Your task to perform on an android device: turn on location history Image 0: 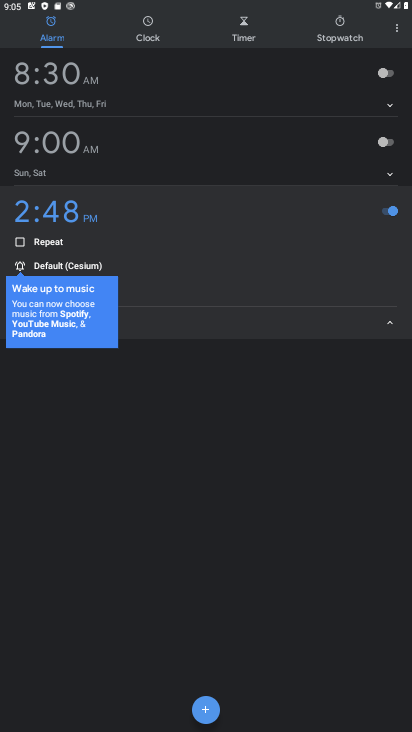
Step 0: press home button
Your task to perform on an android device: turn on location history Image 1: 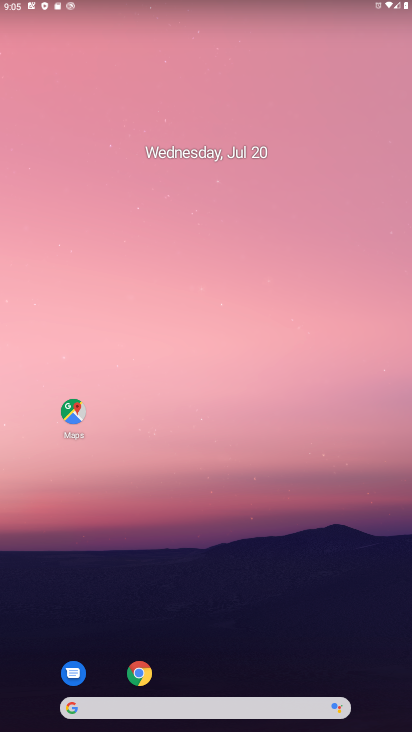
Step 1: drag from (229, 731) to (229, 314)
Your task to perform on an android device: turn on location history Image 2: 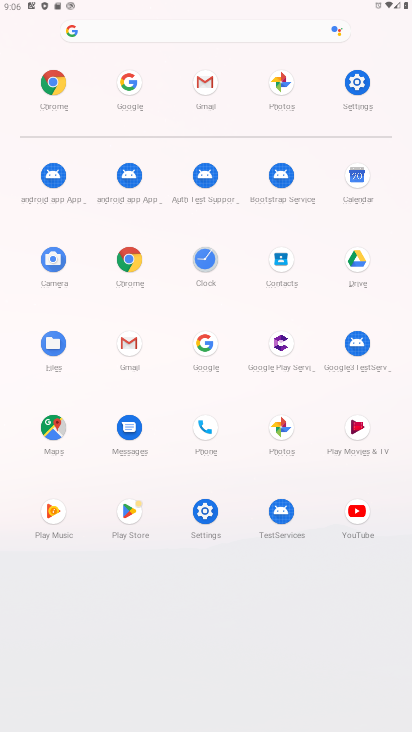
Step 2: click (359, 79)
Your task to perform on an android device: turn on location history Image 3: 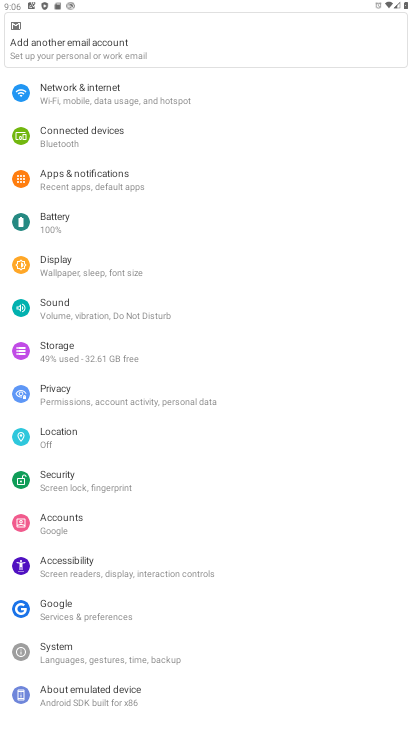
Step 3: click (52, 435)
Your task to perform on an android device: turn on location history Image 4: 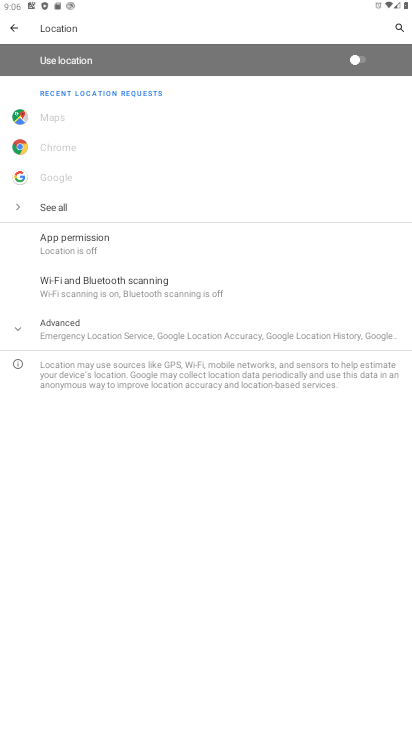
Step 4: click (70, 332)
Your task to perform on an android device: turn on location history Image 5: 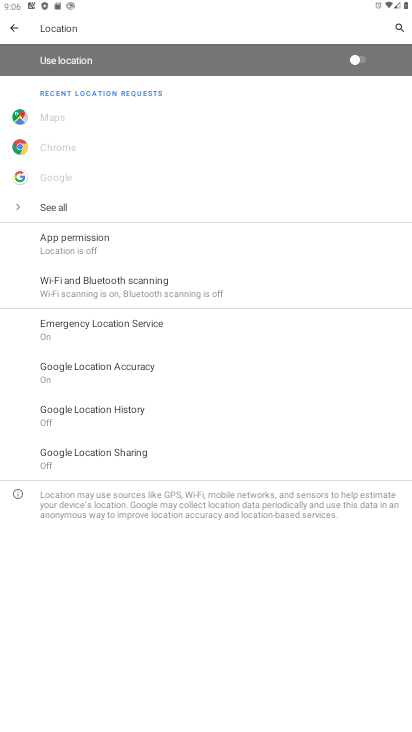
Step 5: click (67, 411)
Your task to perform on an android device: turn on location history Image 6: 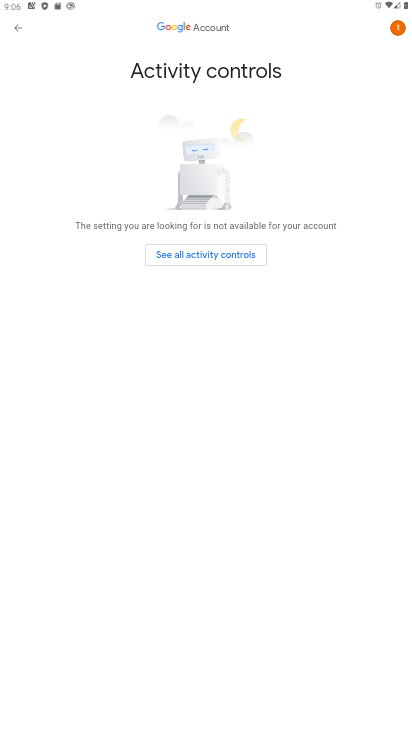
Step 6: click (182, 251)
Your task to perform on an android device: turn on location history Image 7: 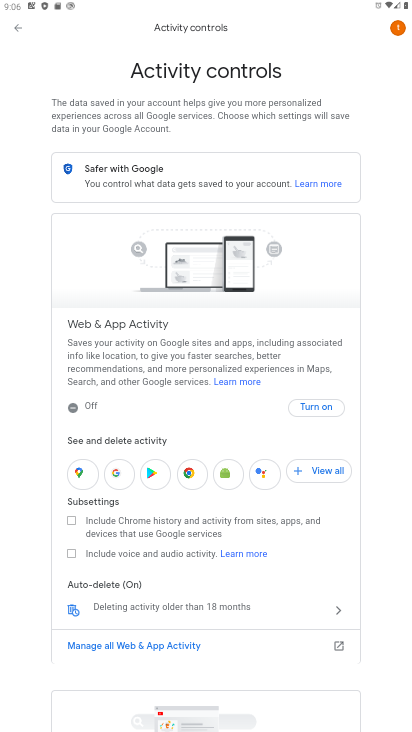
Step 7: click (322, 404)
Your task to perform on an android device: turn on location history Image 8: 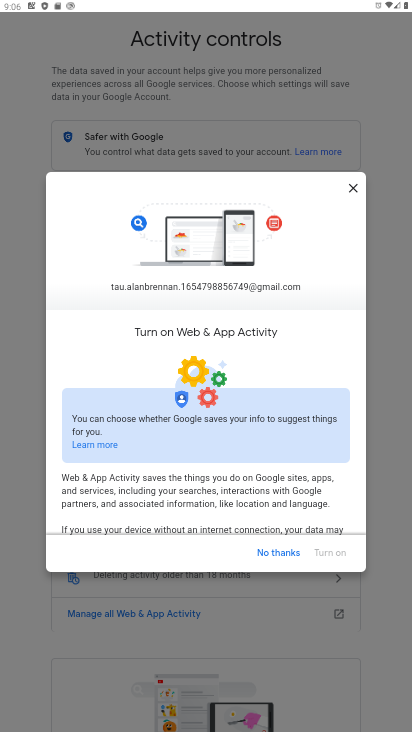
Step 8: drag from (302, 499) to (295, 328)
Your task to perform on an android device: turn on location history Image 9: 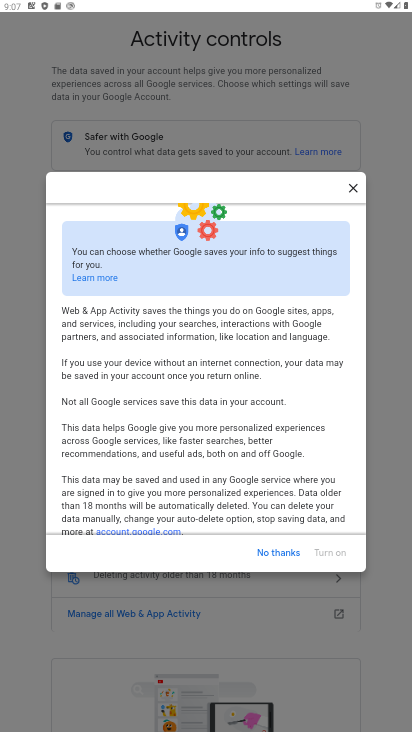
Step 9: drag from (299, 436) to (292, 294)
Your task to perform on an android device: turn on location history Image 10: 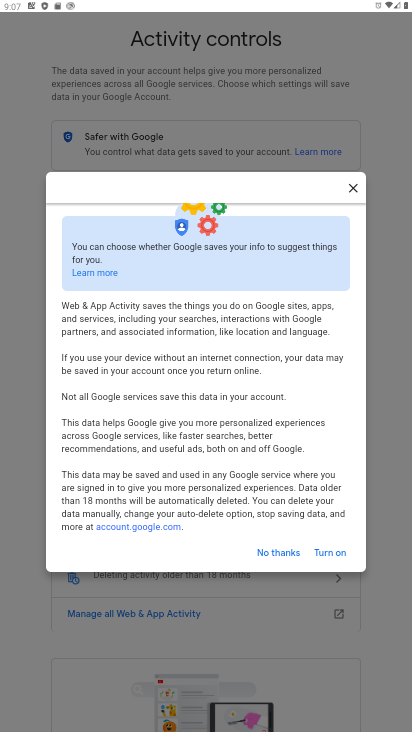
Step 10: click (339, 553)
Your task to perform on an android device: turn on location history Image 11: 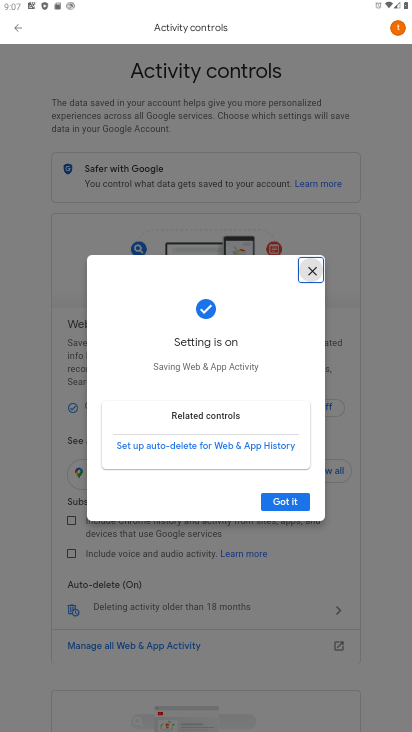
Step 11: click (299, 506)
Your task to perform on an android device: turn on location history Image 12: 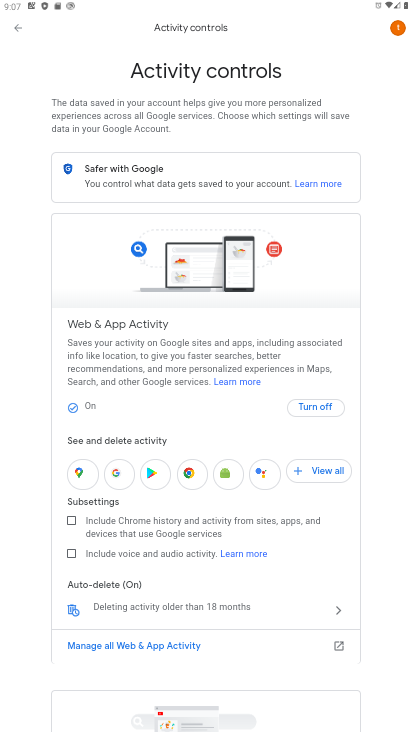
Step 12: task complete